Your task to perform on an android device: Open my contact list Image 0: 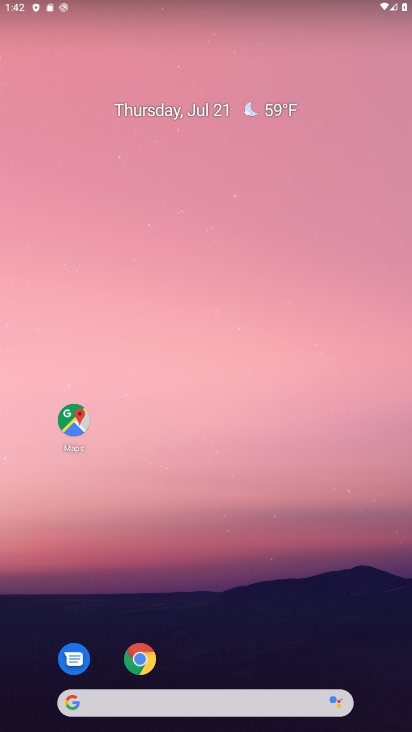
Step 0: drag from (206, 694) to (302, 31)
Your task to perform on an android device: Open my contact list Image 1: 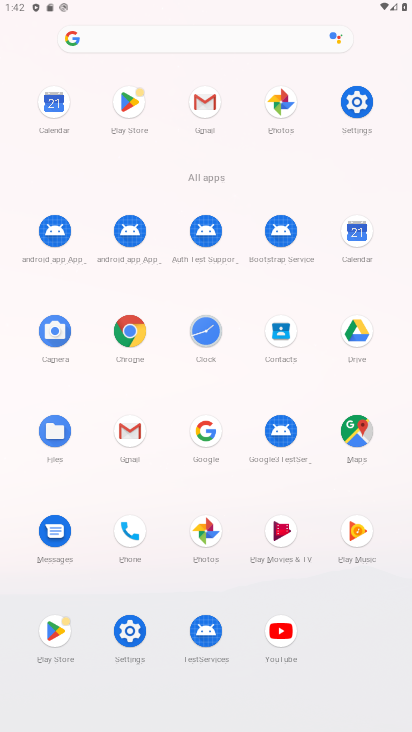
Step 1: click (274, 348)
Your task to perform on an android device: Open my contact list Image 2: 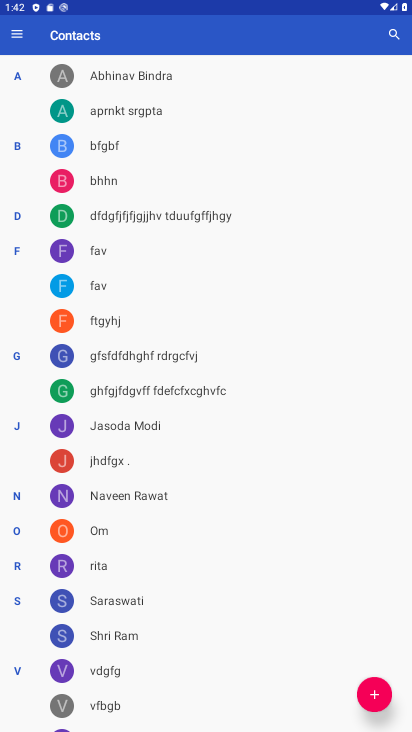
Step 2: task complete